Your task to perform on an android device: Go to CNN.com Image 0: 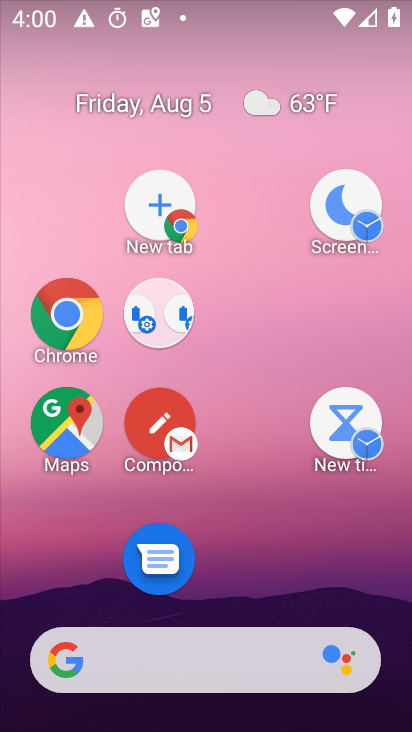
Step 0: drag from (193, 461) to (170, 42)
Your task to perform on an android device: Go to CNN.com Image 1: 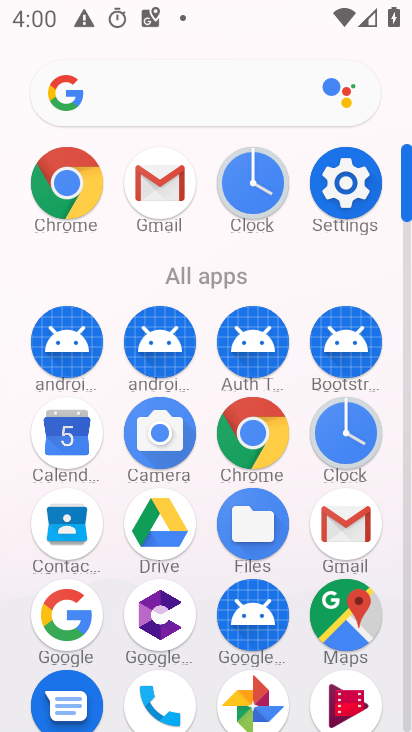
Step 1: drag from (266, 569) to (213, 113)
Your task to perform on an android device: Go to CNN.com Image 2: 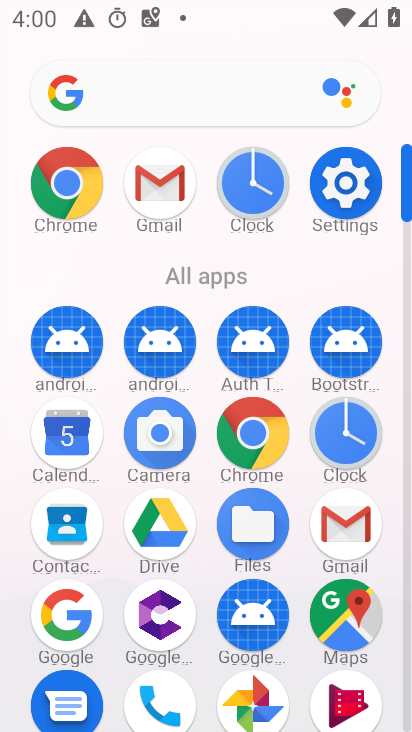
Step 2: click (59, 179)
Your task to perform on an android device: Go to CNN.com Image 3: 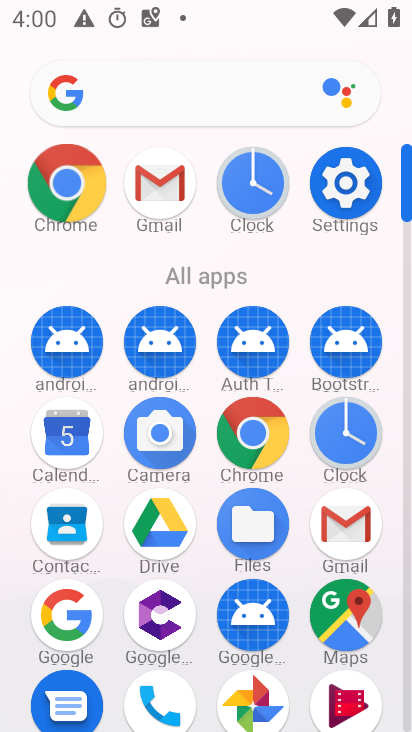
Step 3: click (67, 179)
Your task to perform on an android device: Go to CNN.com Image 4: 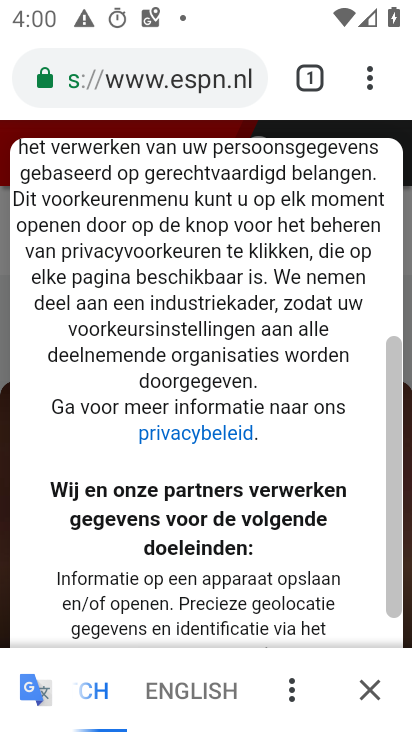
Step 4: task complete